Your task to perform on an android device: Find coffee shops on Maps Image 0: 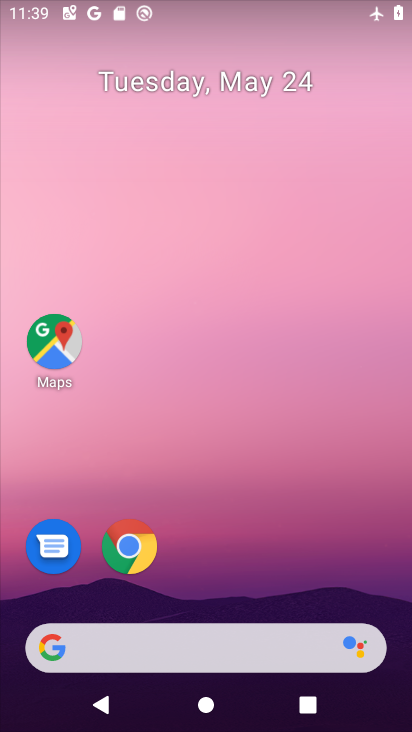
Step 0: click (70, 327)
Your task to perform on an android device: Find coffee shops on Maps Image 1: 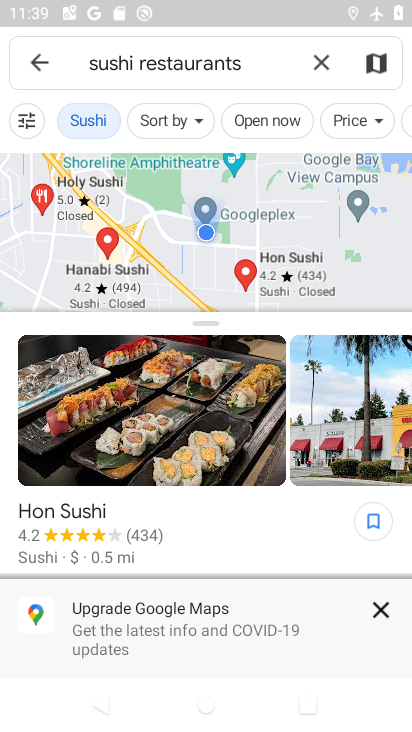
Step 1: click (319, 56)
Your task to perform on an android device: Find coffee shops on Maps Image 2: 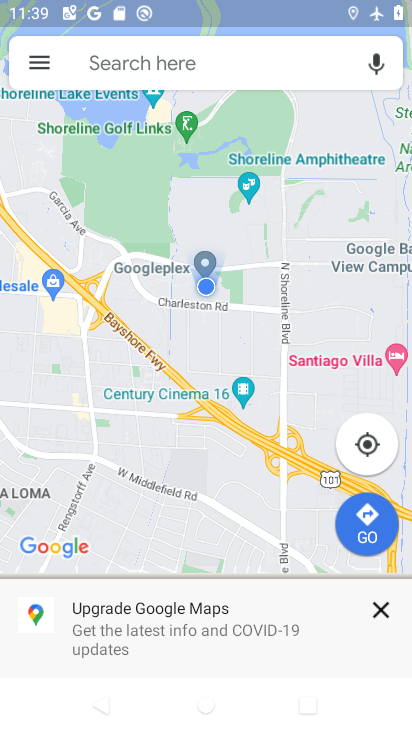
Step 2: type "coffee shops"
Your task to perform on an android device: Find coffee shops on Maps Image 3: 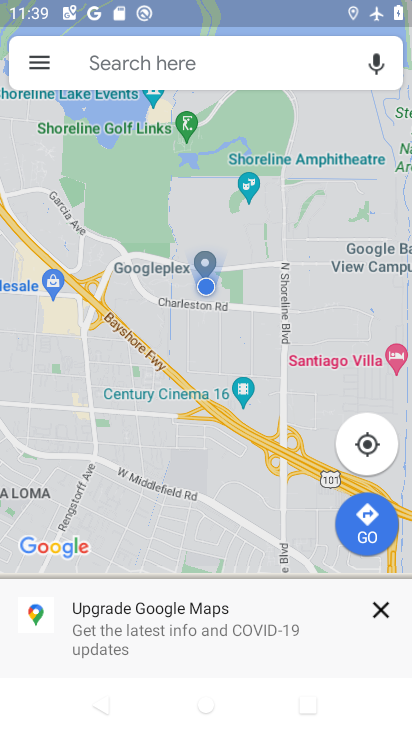
Step 3: click (384, 613)
Your task to perform on an android device: Find coffee shops on Maps Image 4: 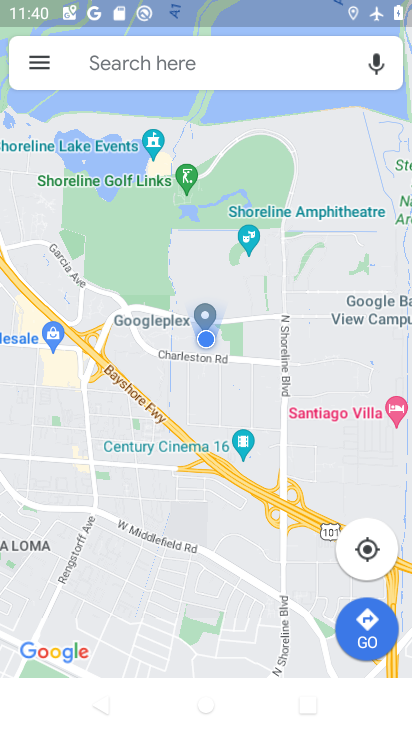
Step 4: click (135, 49)
Your task to perform on an android device: Find coffee shops on Maps Image 5: 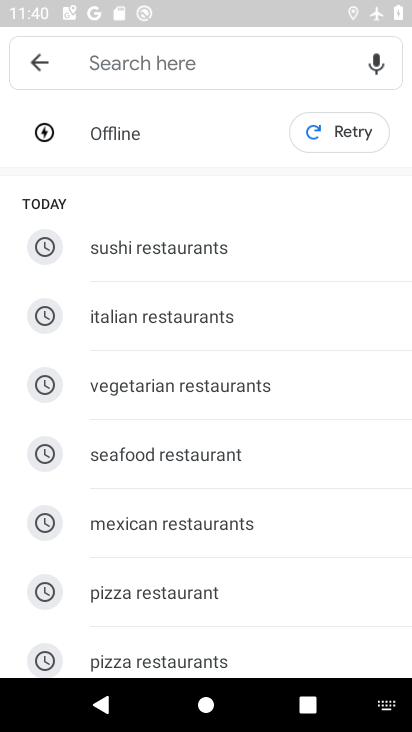
Step 5: task complete